Your task to perform on an android device: See recent photos Image 0: 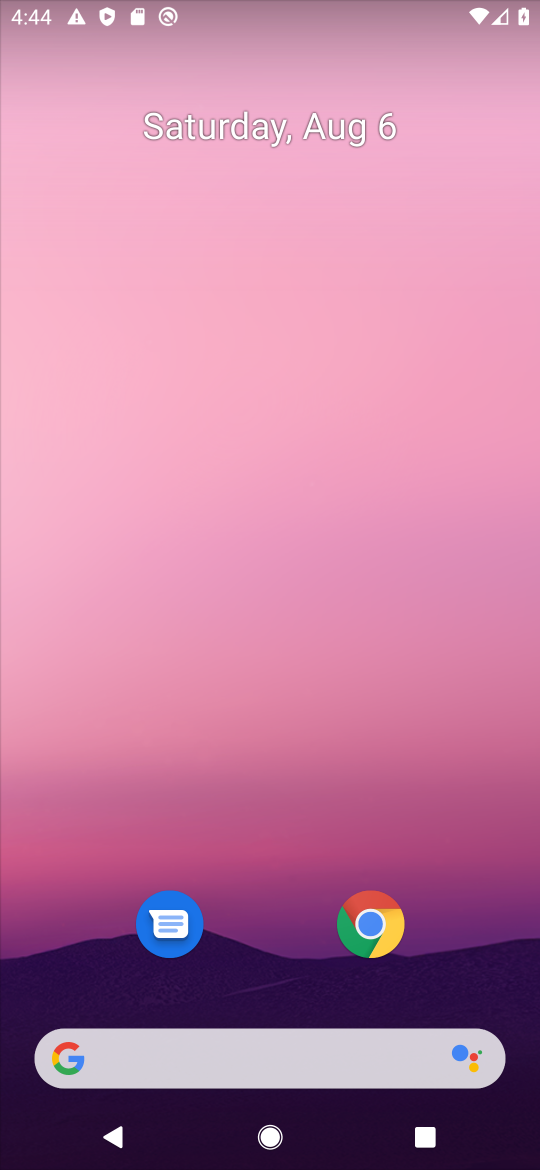
Step 0: drag from (194, 1113) to (247, 187)
Your task to perform on an android device: See recent photos Image 1: 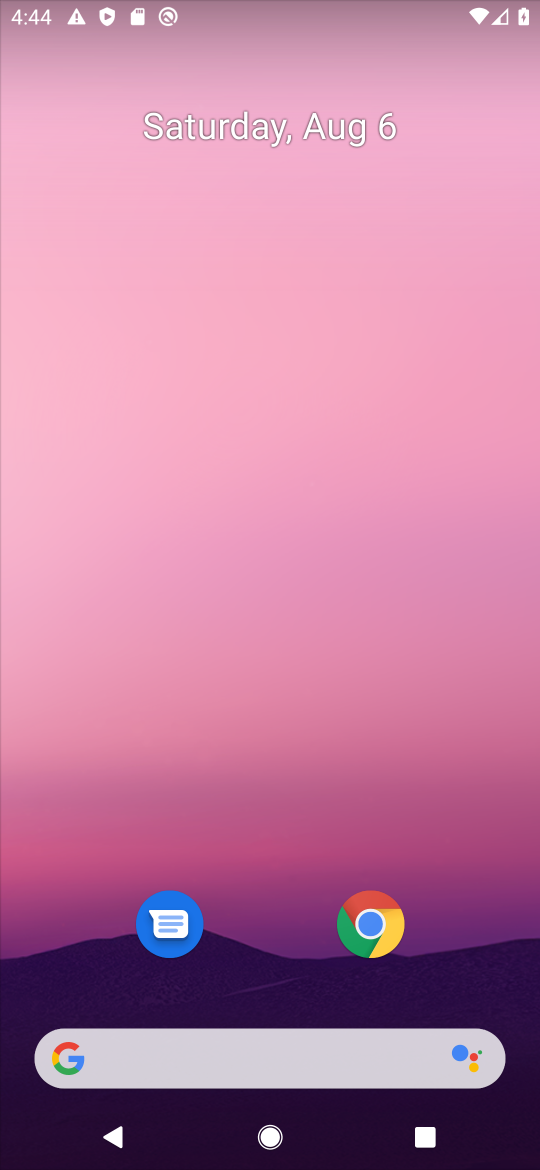
Step 1: drag from (203, 1135) to (265, 35)
Your task to perform on an android device: See recent photos Image 2: 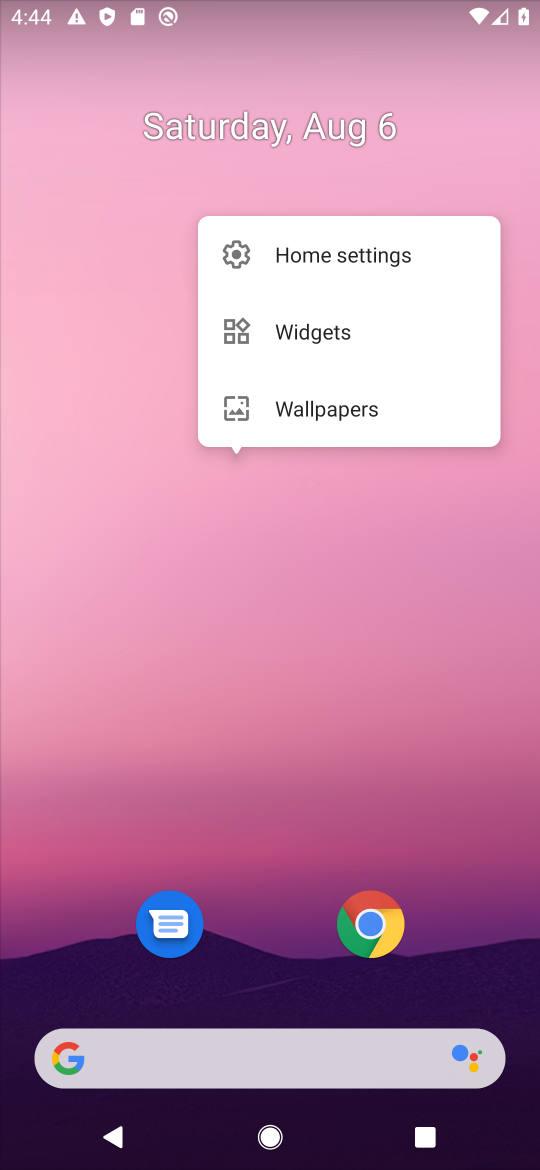
Step 2: click (312, 690)
Your task to perform on an android device: See recent photos Image 3: 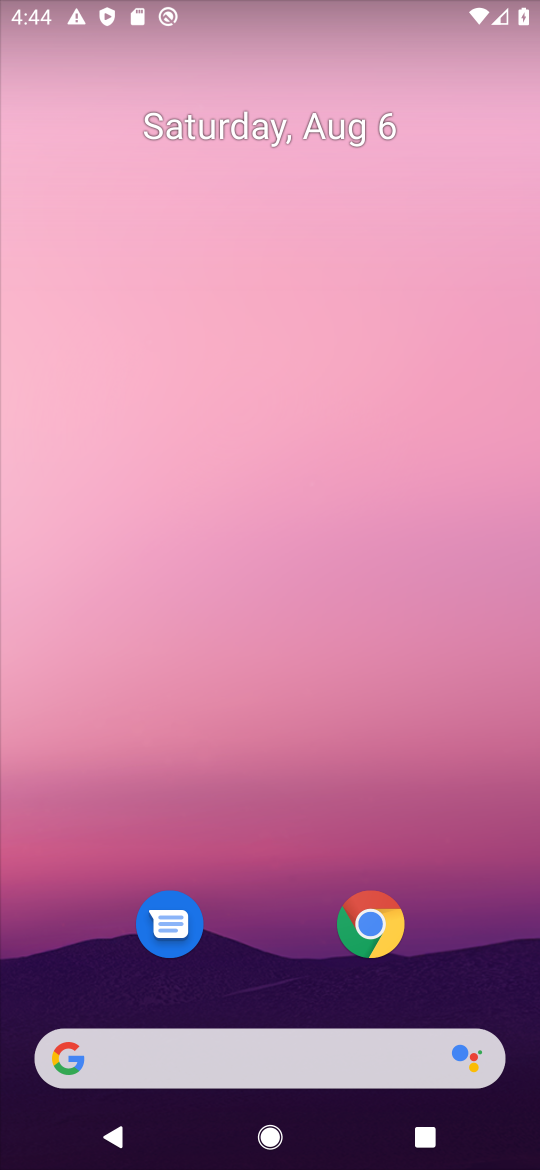
Step 3: press home button
Your task to perform on an android device: See recent photos Image 4: 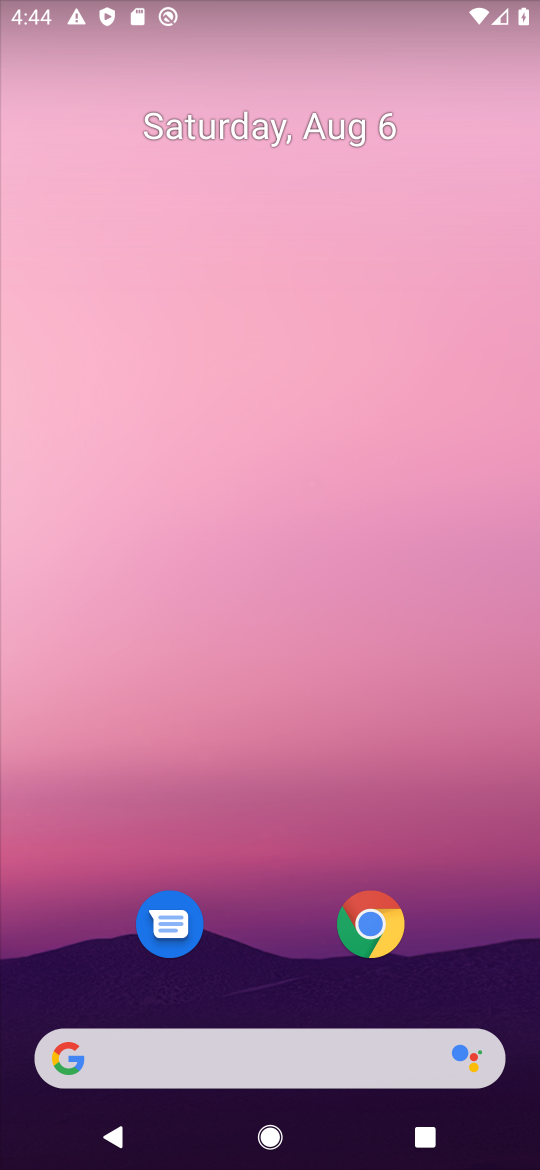
Step 4: drag from (182, 1125) to (222, 50)
Your task to perform on an android device: See recent photos Image 5: 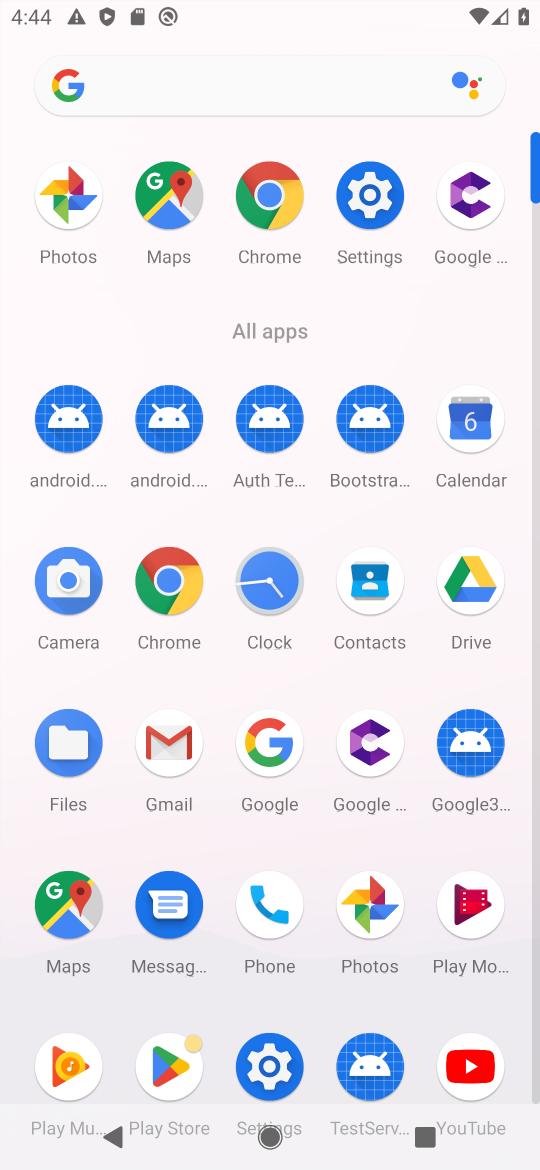
Step 5: click (382, 914)
Your task to perform on an android device: See recent photos Image 6: 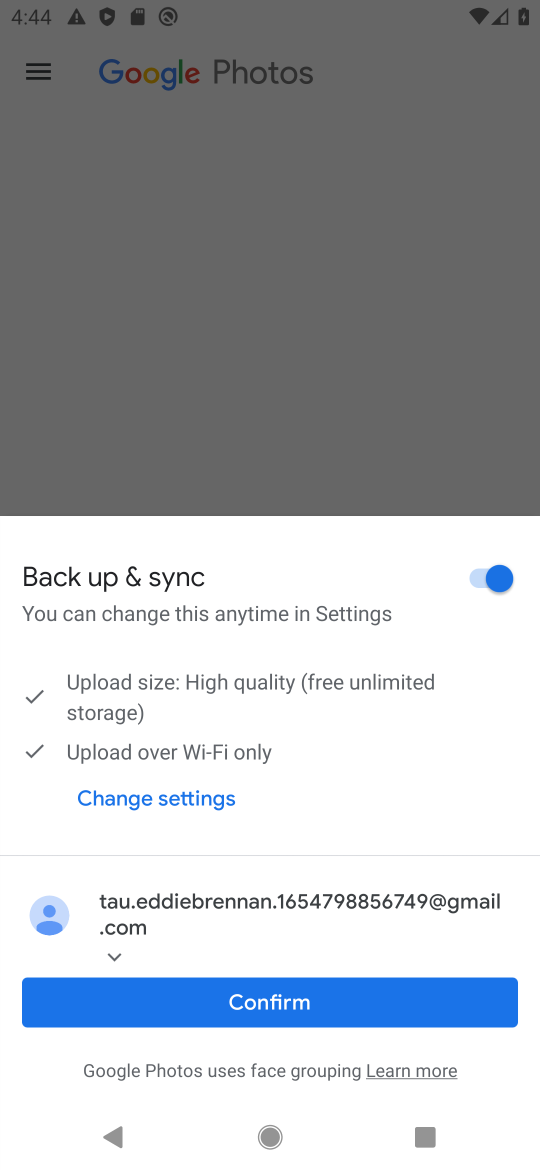
Step 6: click (215, 1007)
Your task to perform on an android device: See recent photos Image 7: 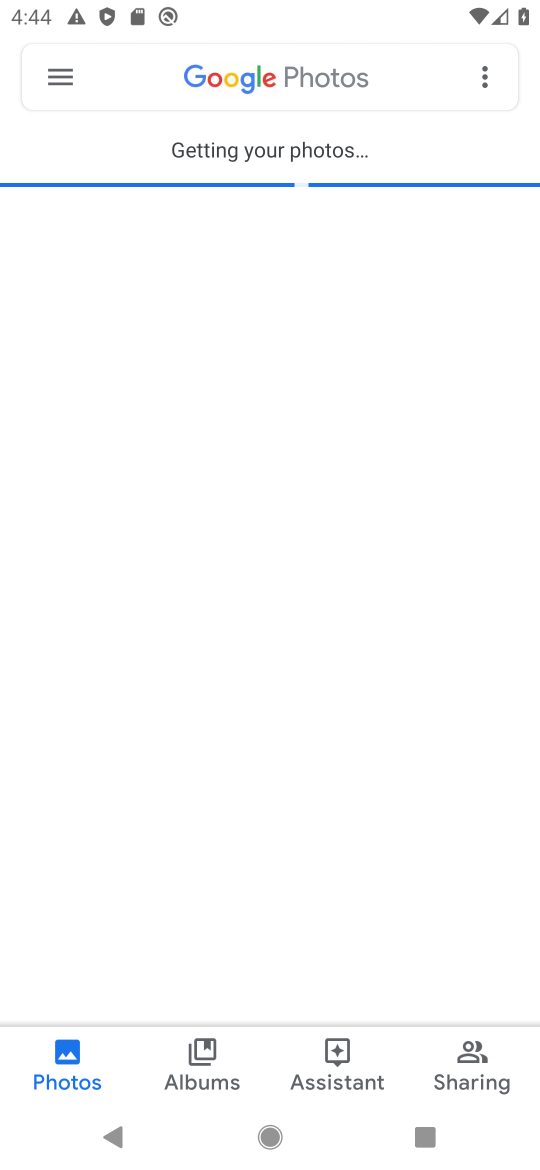
Step 7: click (248, 72)
Your task to perform on an android device: See recent photos Image 8: 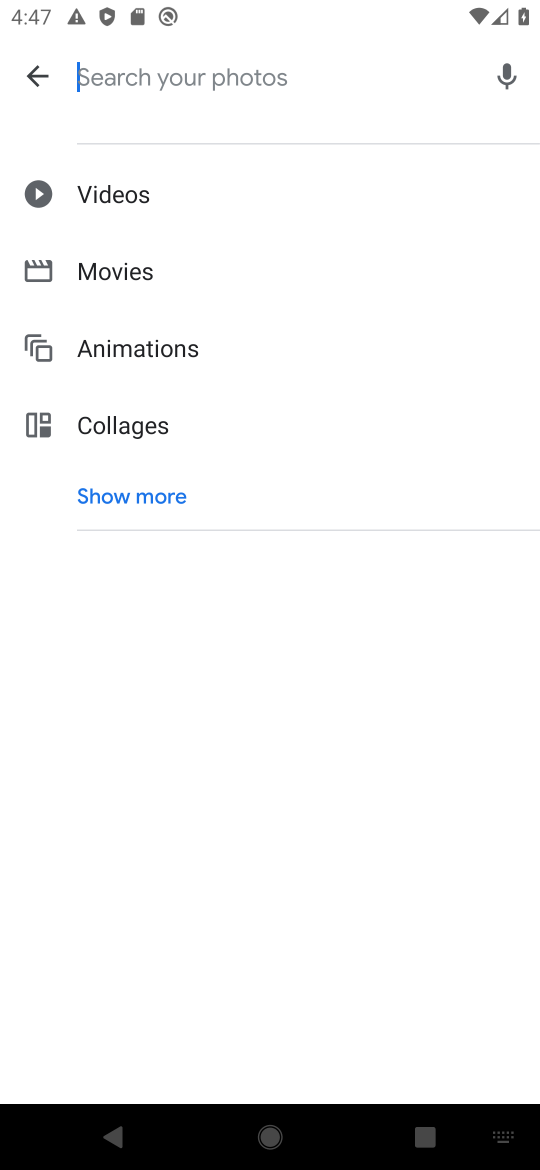
Step 8: click (40, 80)
Your task to perform on an android device: See recent photos Image 9: 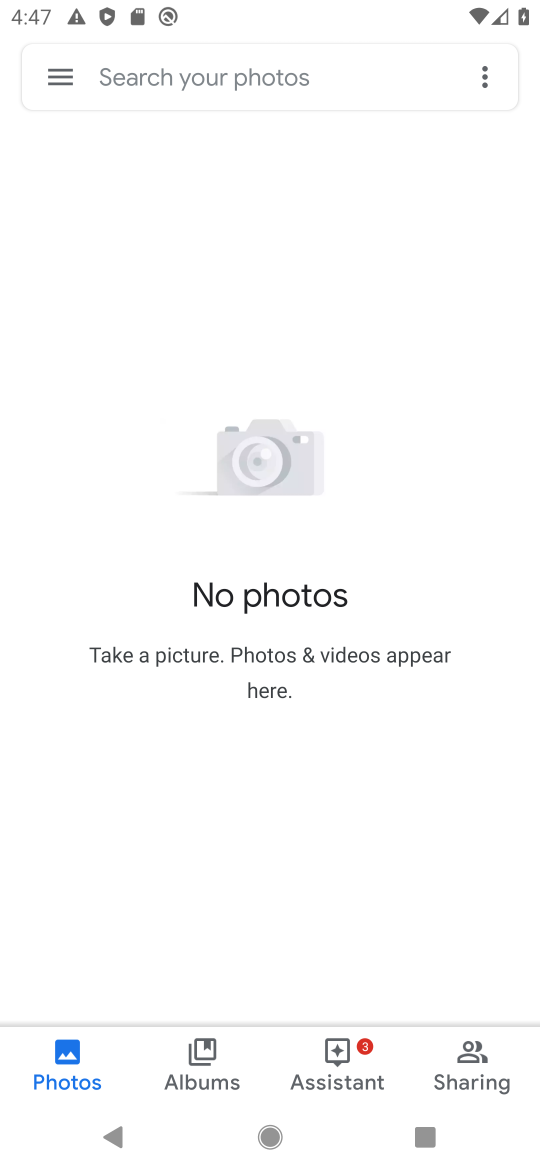
Step 9: click (316, 51)
Your task to perform on an android device: See recent photos Image 10: 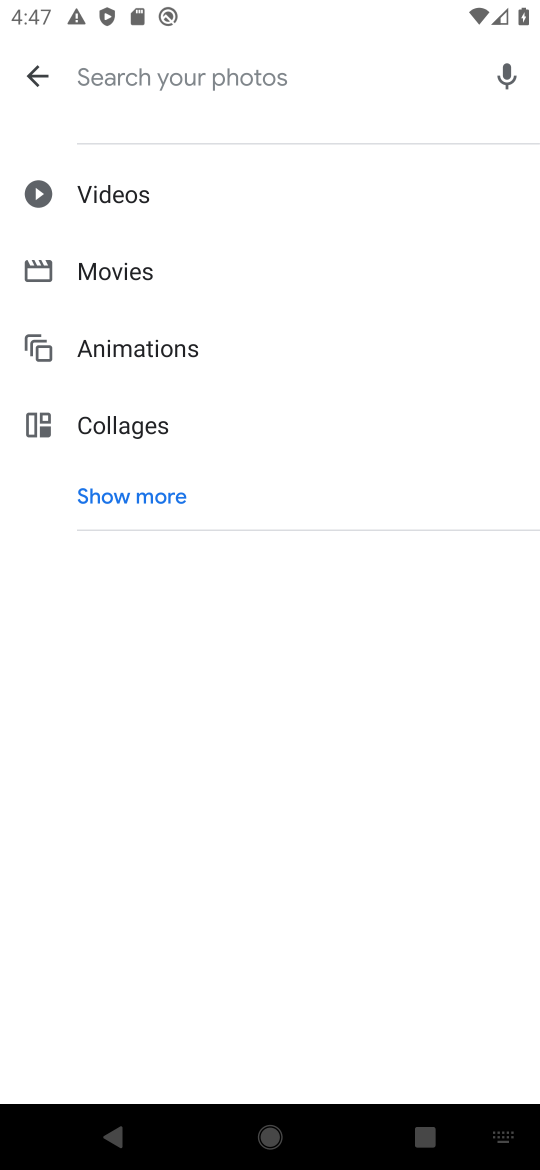
Step 10: task complete